Your task to perform on an android device: change alarm snooze length Image 0: 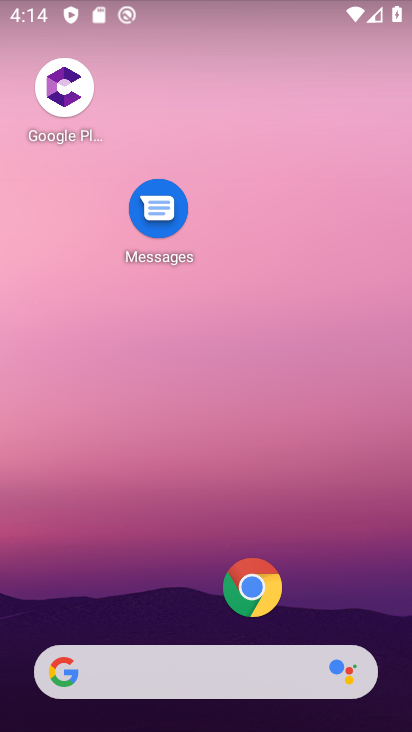
Step 0: drag from (153, 504) to (146, 211)
Your task to perform on an android device: change alarm snooze length Image 1: 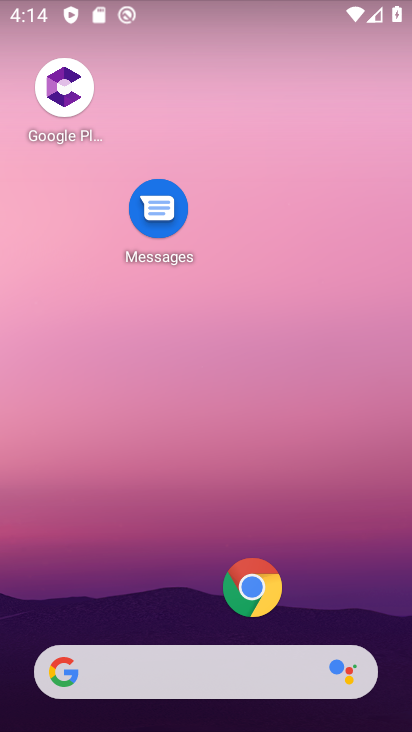
Step 1: drag from (122, 608) to (168, 167)
Your task to perform on an android device: change alarm snooze length Image 2: 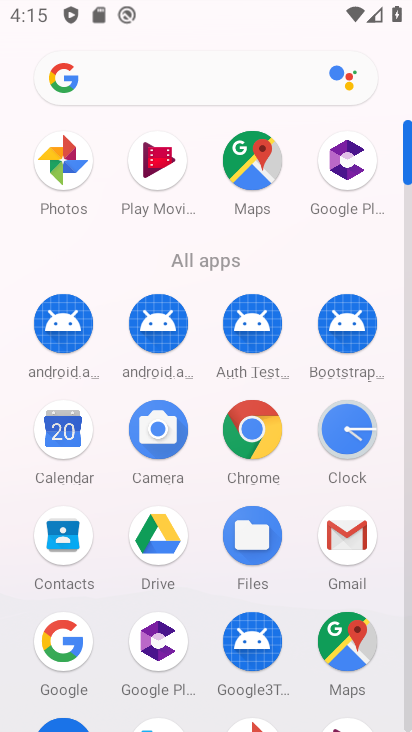
Step 2: drag from (185, 531) to (205, 239)
Your task to perform on an android device: change alarm snooze length Image 3: 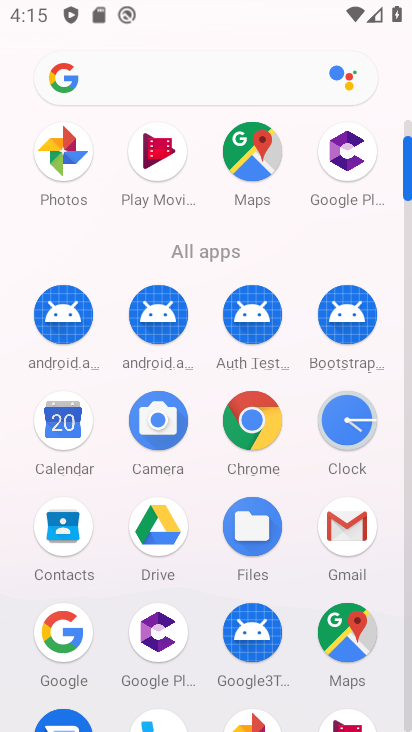
Step 3: click (333, 425)
Your task to perform on an android device: change alarm snooze length Image 4: 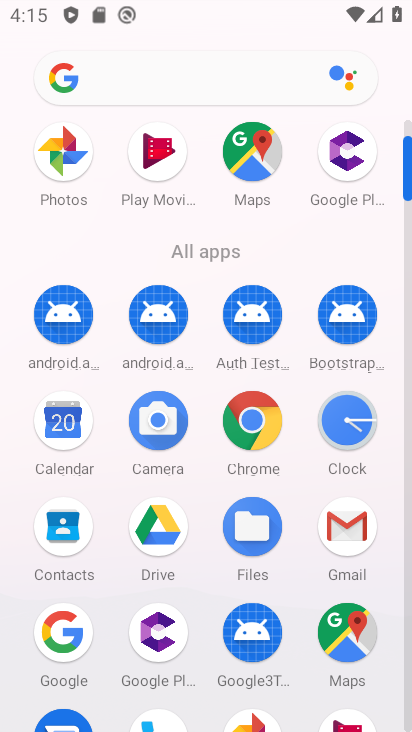
Step 4: click (333, 425)
Your task to perform on an android device: change alarm snooze length Image 5: 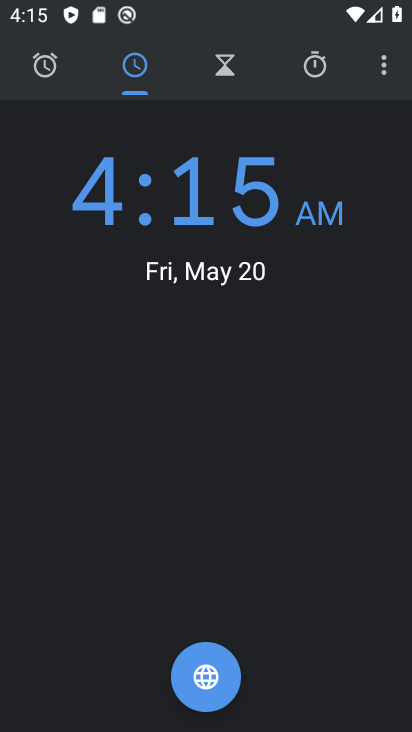
Step 5: click (377, 52)
Your task to perform on an android device: change alarm snooze length Image 6: 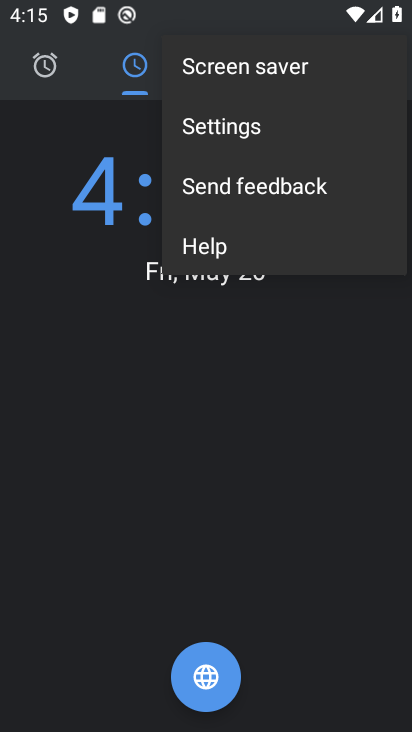
Step 6: click (393, 72)
Your task to perform on an android device: change alarm snooze length Image 7: 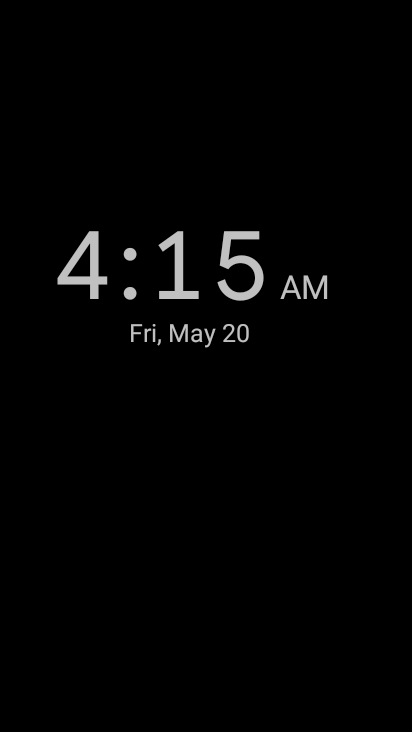
Step 7: press home button
Your task to perform on an android device: change alarm snooze length Image 8: 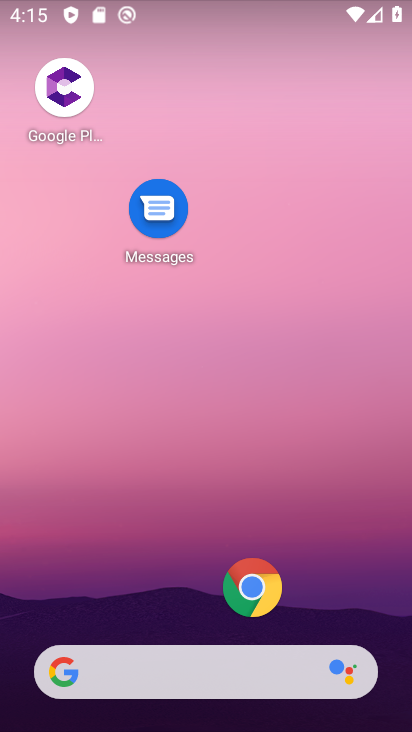
Step 8: drag from (138, 542) to (212, 20)
Your task to perform on an android device: change alarm snooze length Image 9: 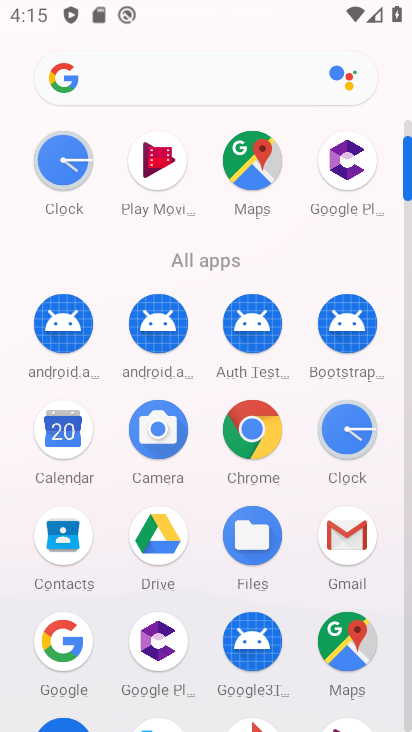
Step 9: click (333, 424)
Your task to perform on an android device: change alarm snooze length Image 10: 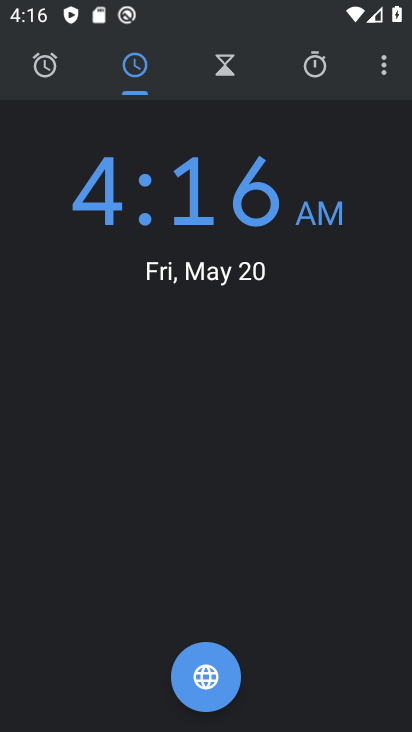
Step 10: click (391, 63)
Your task to perform on an android device: change alarm snooze length Image 11: 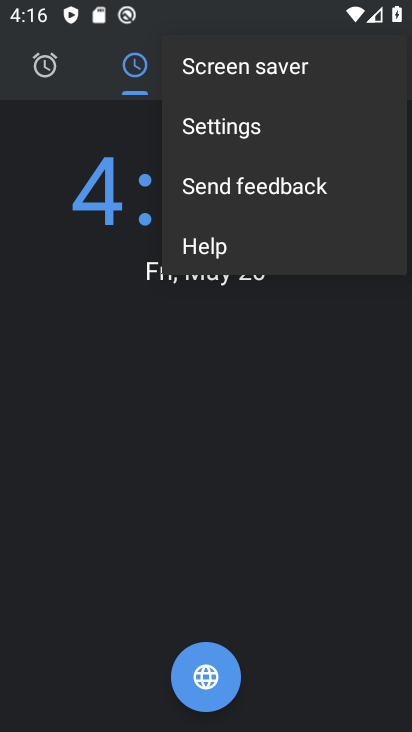
Step 11: click (237, 140)
Your task to perform on an android device: change alarm snooze length Image 12: 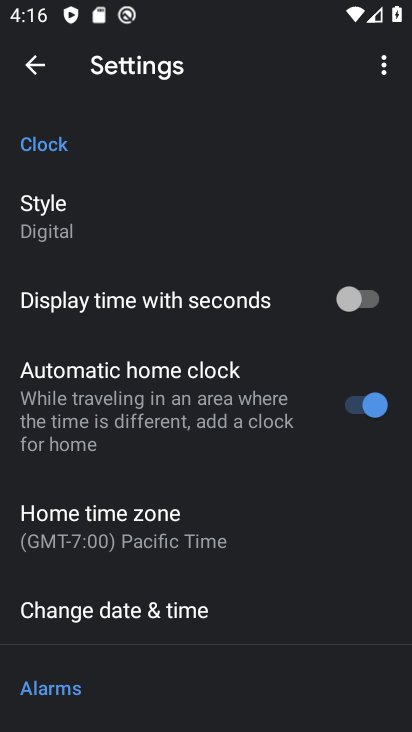
Step 12: drag from (193, 647) to (241, 225)
Your task to perform on an android device: change alarm snooze length Image 13: 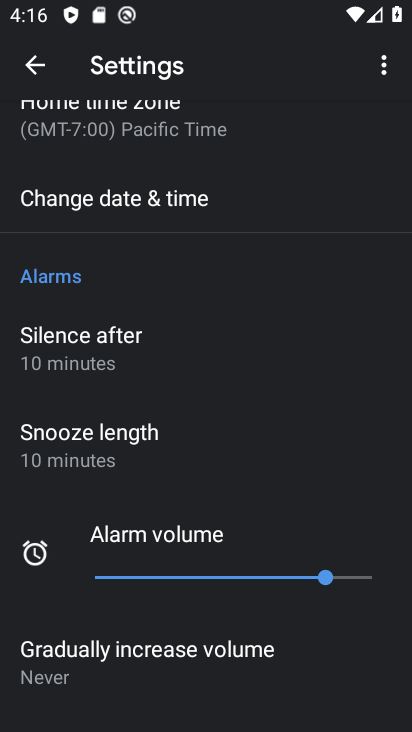
Step 13: click (174, 422)
Your task to perform on an android device: change alarm snooze length Image 14: 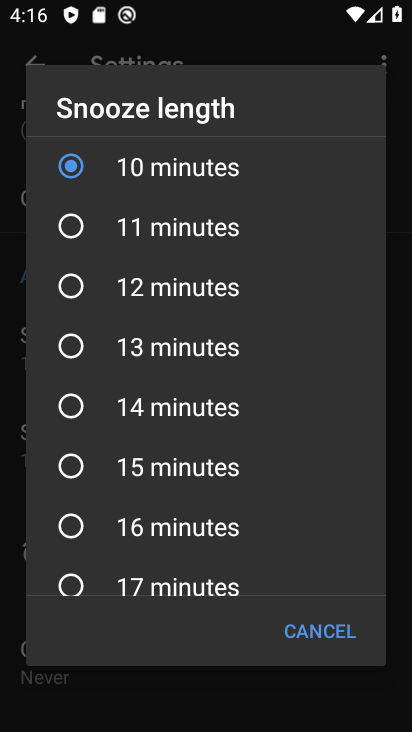
Step 14: click (174, 422)
Your task to perform on an android device: change alarm snooze length Image 15: 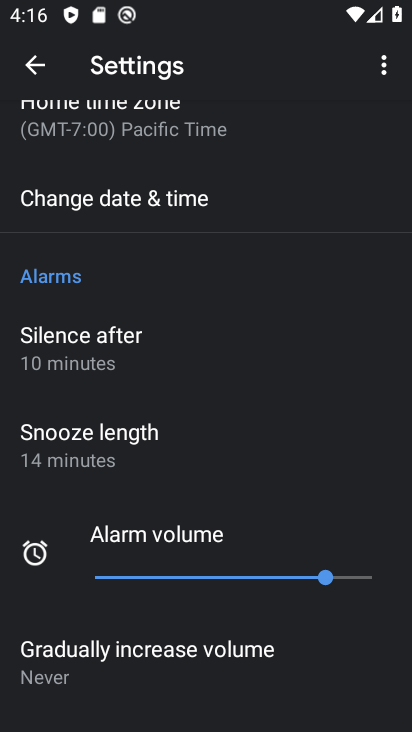
Step 15: task complete